Your task to perform on an android device: Search for seafood restaurants on Google Maps Image 0: 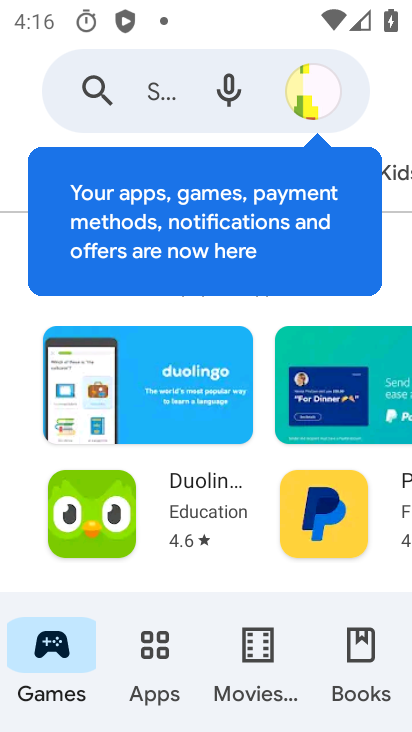
Step 0: press home button
Your task to perform on an android device: Search for seafood restaurants on Google Maps Image 1: 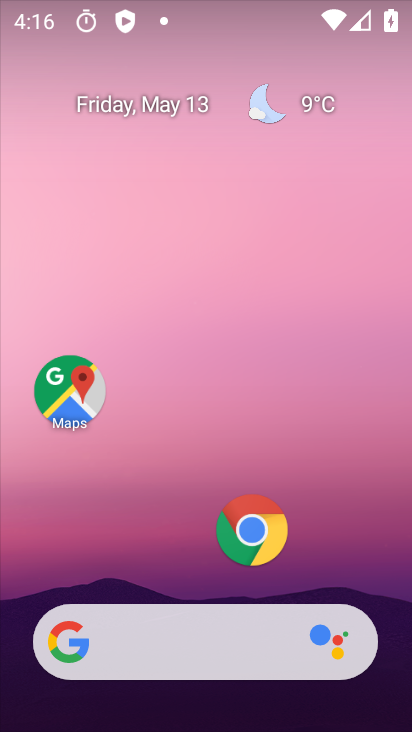
Step 1: click (70, 384)
Your task to perform on an android device: Search for seafood restaurants on Google Maps Image 2: 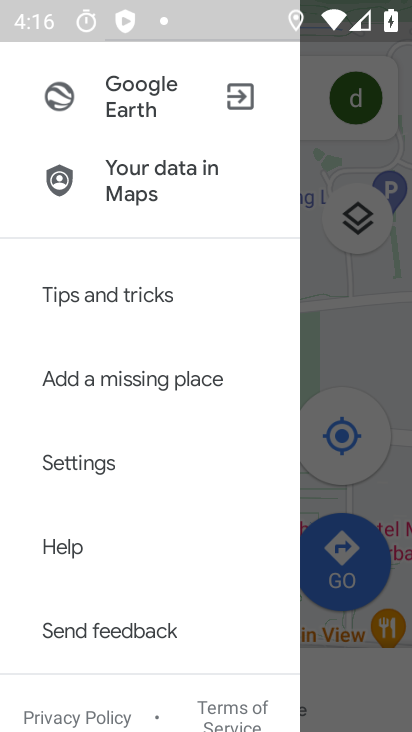
Step 2: click (367, 375)
Your task to perform on an android device: Search for seafood restaurants on Google Maps Image 3: 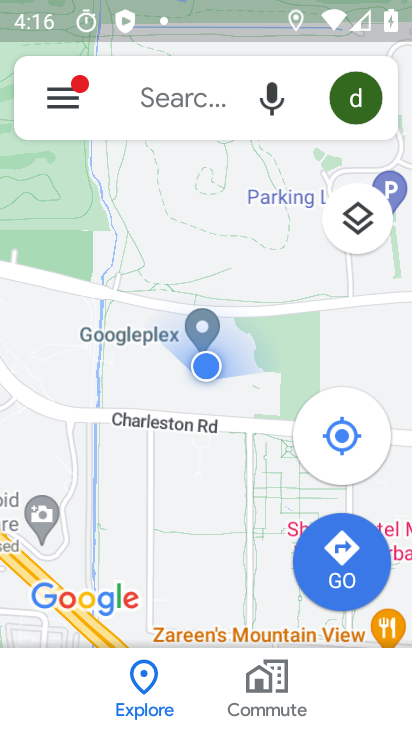
Step 3: click (169, 94)
Your task to perform on an android device: Search for seafood restaurants on Google Maps Image 4: 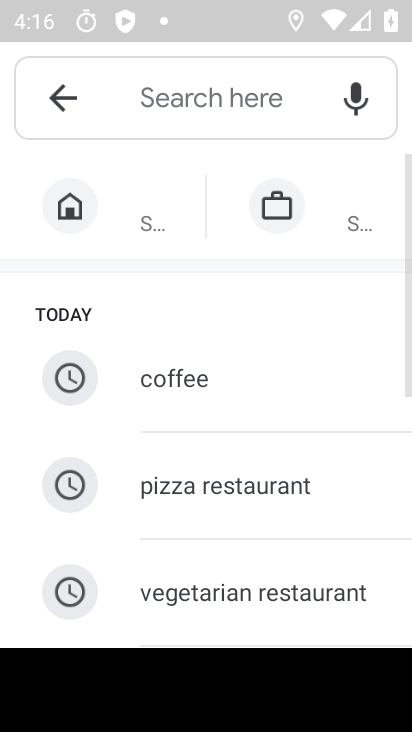
Step 4: drag from (236, 583) to (261, 312)
Your task to perform on an android device: Search for seafood restaurants on Google Maps Image 5: 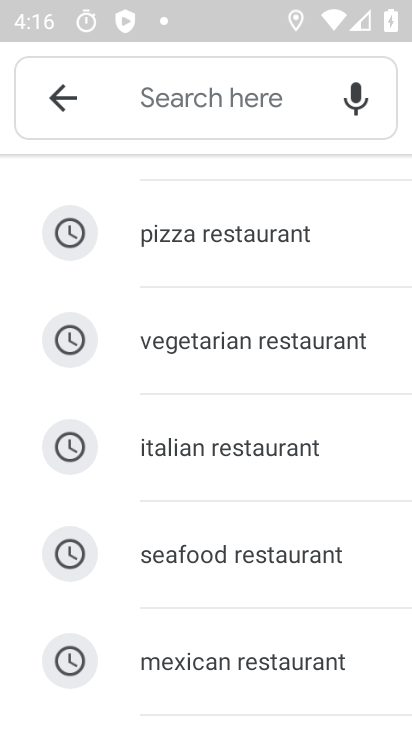
Step 5: click (215, 559)
Your task to perform on an android device: Search for seafood restaurants on Google Maps Image 6: 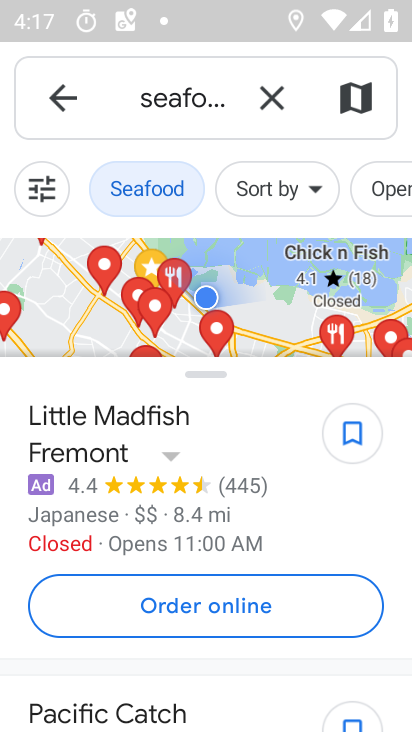
Step 6: task complete